Your task to perform on an android device: Search for Italian restaurants on Maps Image 0: 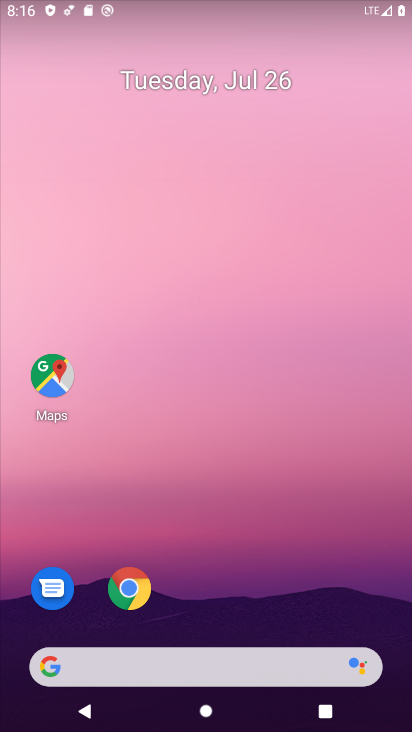
Step 0: click (49, 391)
Your task to perform on an android device: Search for Italian restaurants on Maps Image 1: 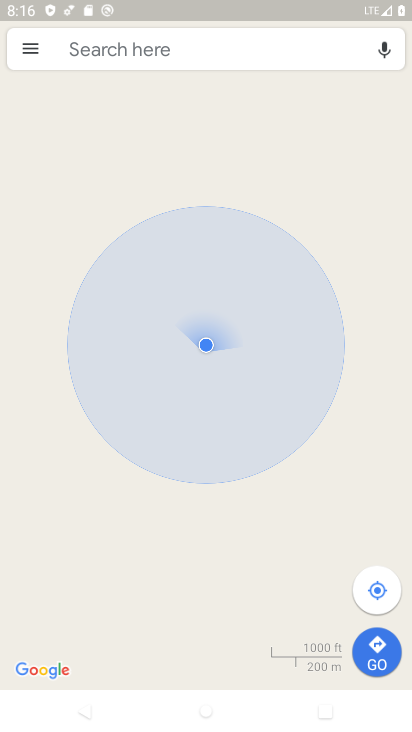
Step 1: click (167, 62)
Your task to perform on an android device: Search for Italian restaurants on Maps Image 2: 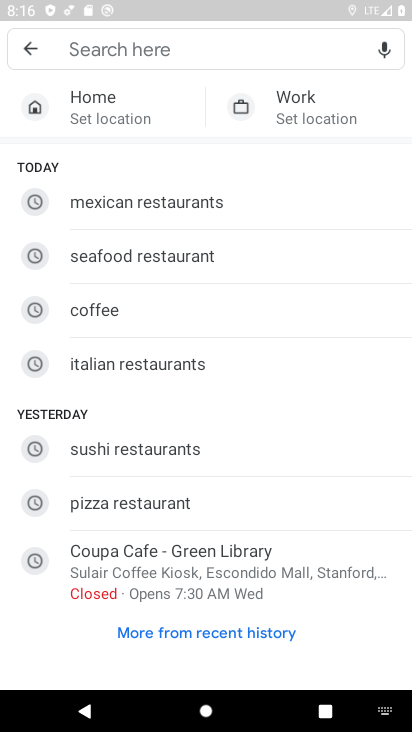
Step 2: type "italian restaurants"
Your task to perform on an android device: Search for Italian restaurants on Maps Image 3: 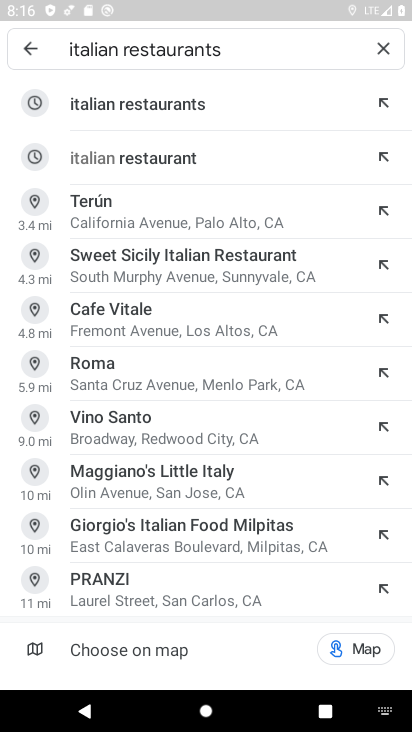
Step 3: click (261, 109)
Your task to perform on an android device: Search for Italian restaurants on Maps Image 4: 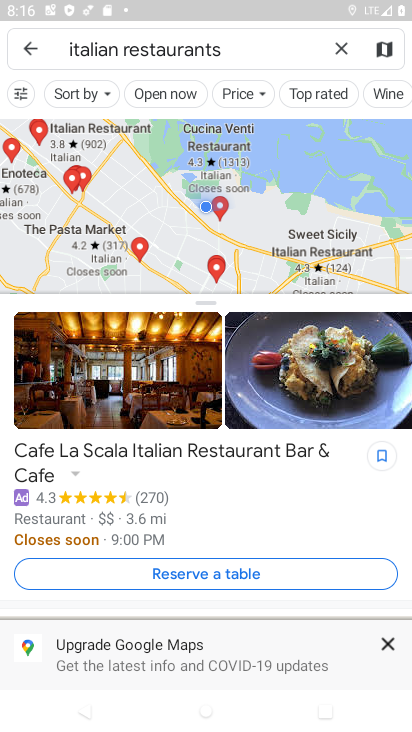
Step 4: task complete